Your task to perform on an android device: open app "eBay: The shopping marketplace" (install if not already installed) Image 0: 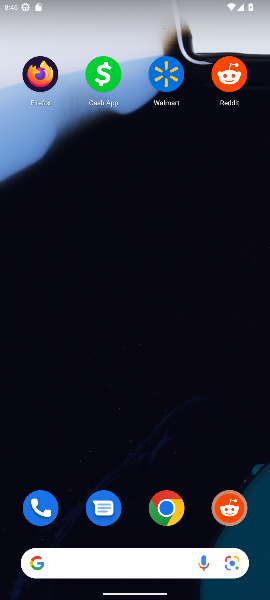
Step 0: drag from (138, 565) to (199, 100)
Your task to perform on an android device: open app "eBay: The shopping marketplace" (install if not already installed) Image 1: 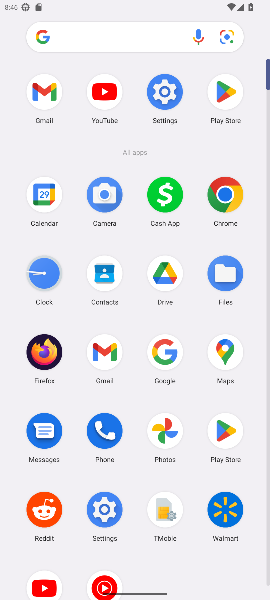
Step 1: click (228, 90)
Your task to perform on an android device: open app "eBay: The shopping marketplace" (install if not already installed) Image 2: 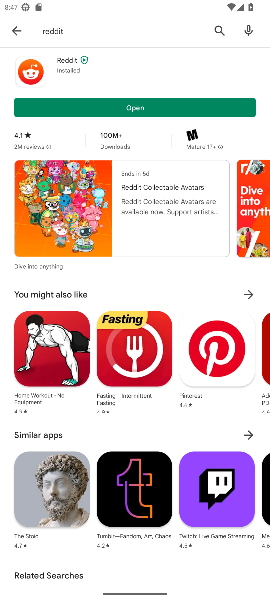
Step 2: click (216, 28)
Your task to perform on an android device: open app "eBay: The shopping marketplace" (install if not already installed) Image 3: 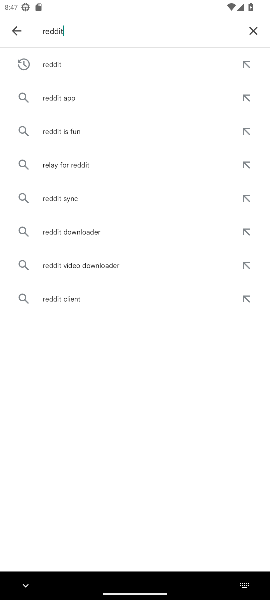
Step 3: click (252, 30)
Your task to perform on an android device: open app "eBay: The shopping marketplace" (install if not already installed) Image 4: 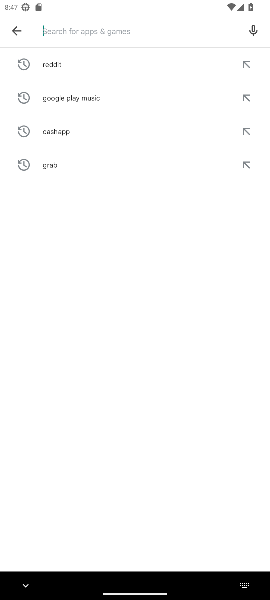
Step 4: type "ebay: the shopping marketplace"
Your task to perform on an android device: open app "eBay: The shopping marketplace" (install if not already installed) Image 5: 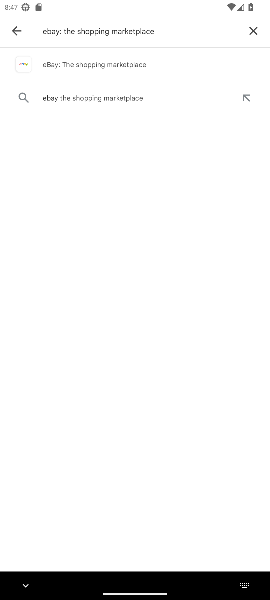
Step 5: click (168, 58)
Your task to perform on an android device: open app "eBay: The shopping marketplace" (install if not already installed) Image 6: 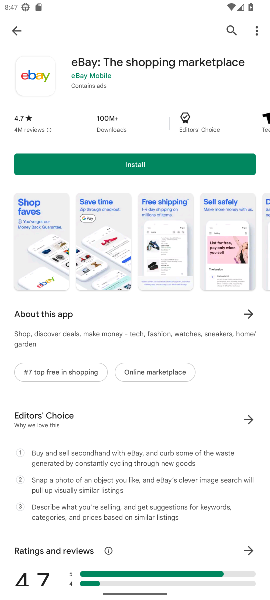
Step 6: click (202, 158)
Your task to perform on an android device: open app "eBay: The shopping marketplace" (install if not already installed) Image 7: 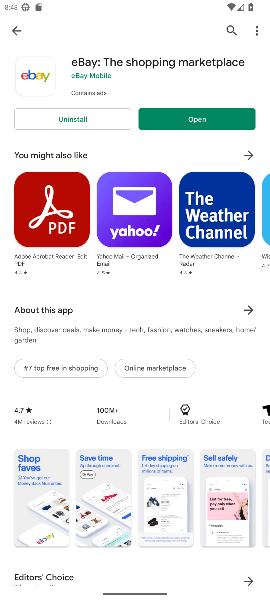
Step 7: task complete